Your task to perform on an android device: Is it going to rain tomorrow? Image 0: 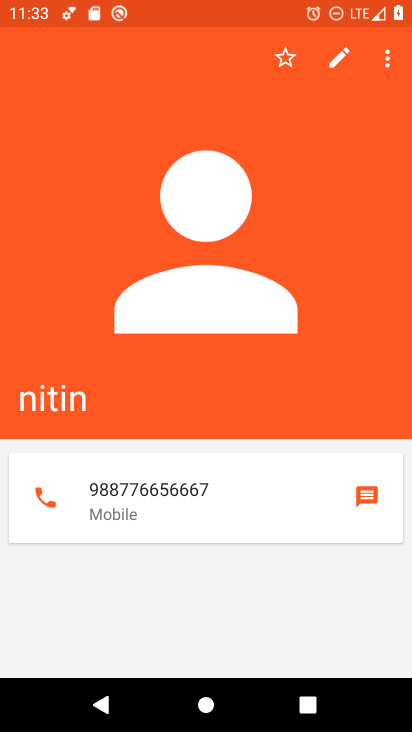
Step 0: press home button
Your task to perform on an android device: Is it going to rain tomorrow? Image 1: 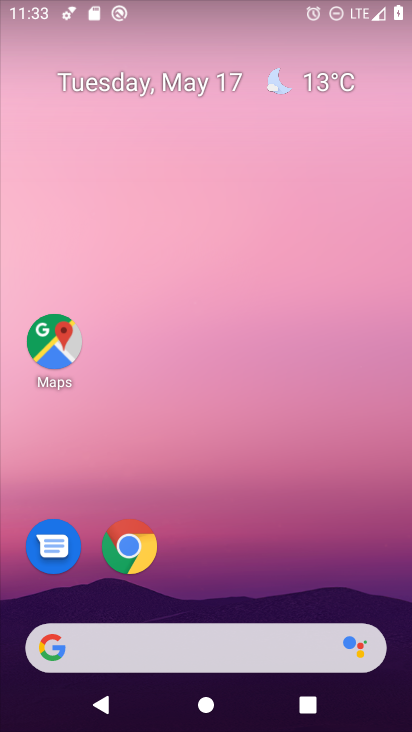
Step 1: click (333, 86)
Your task to perform on an android device: Is it going to rain tomorrow? Image 2: 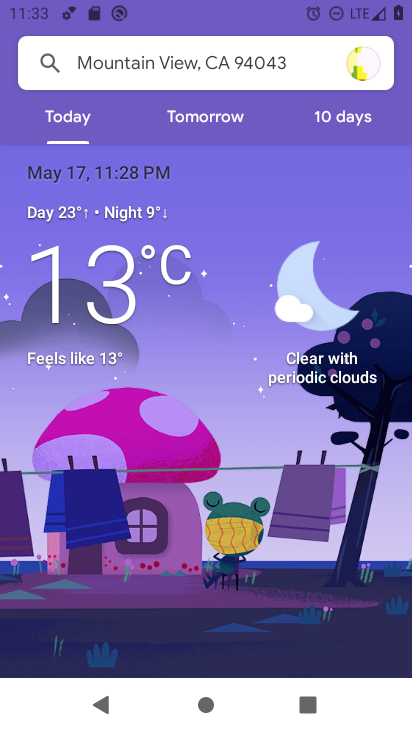
Step 2: click (193, 128)
Your task to perform on an android device: Is it going to rain tomorrow? Image 3: 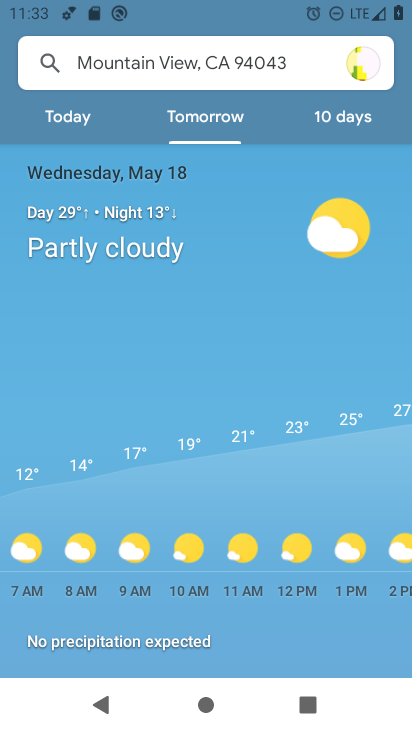
Step 3: task complete